Your task to perform on an android device: What's the weather going to be tomorrow? Image 0: 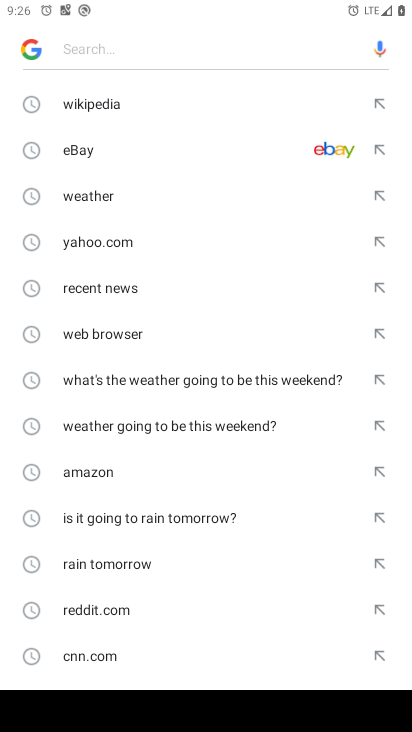
Step 0: press home button
Your task to perform on an android device: What's the weather going to be tomorrow? Image 1: 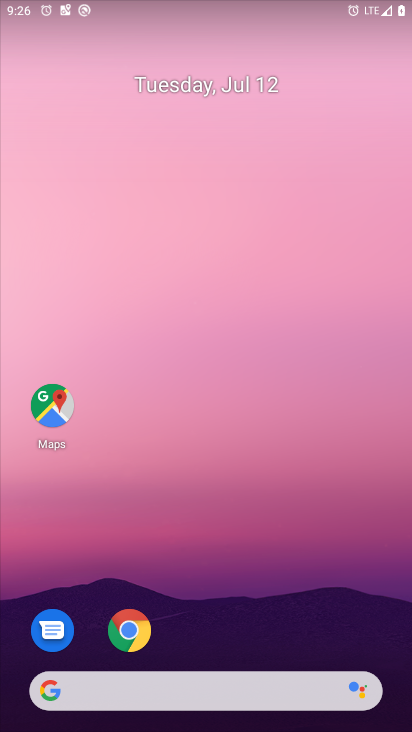
Step 1: click (174, 683)
Your task to perform on an android device: What's the weather going to be tomorrow? Image 2: 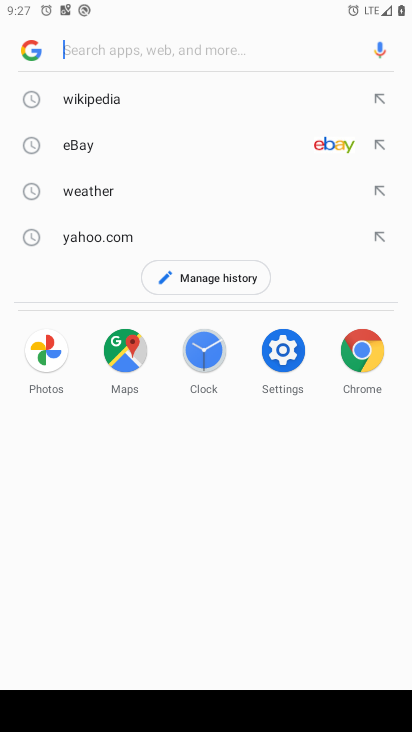
Step 2: type "What's the weather going to be tomorrow?"
Your task to perform on an android device: What's the weather going to be tomorrow? Image 3: 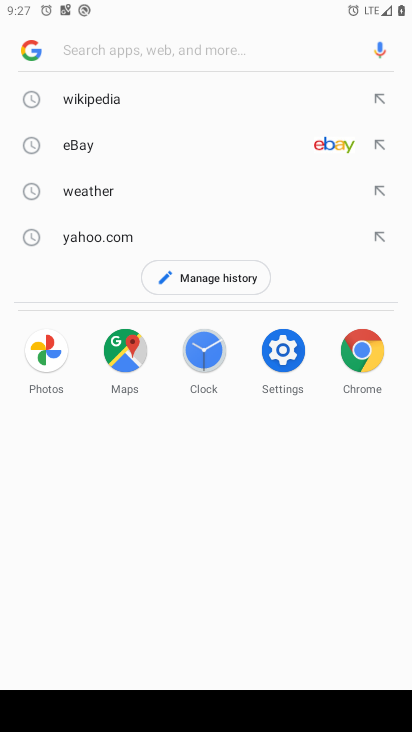
Step 3: click (105, 50)
Your task to perform on an android device: What's the weather going to be tomorrow? Image 4: 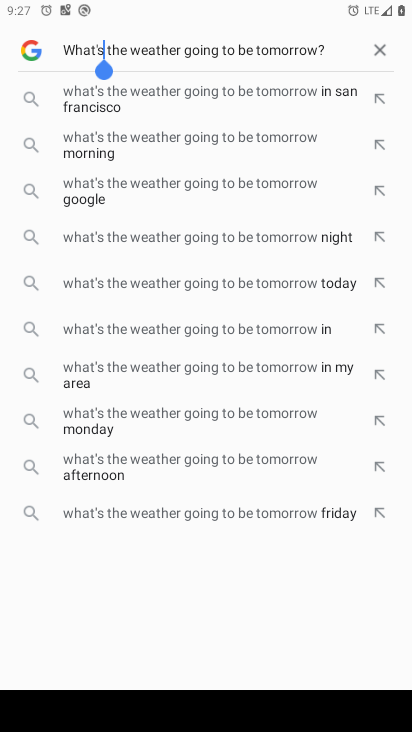
Step 4: press enter
Your task to perform on an android device: What's the weather going to be tomorrow? Image 5: 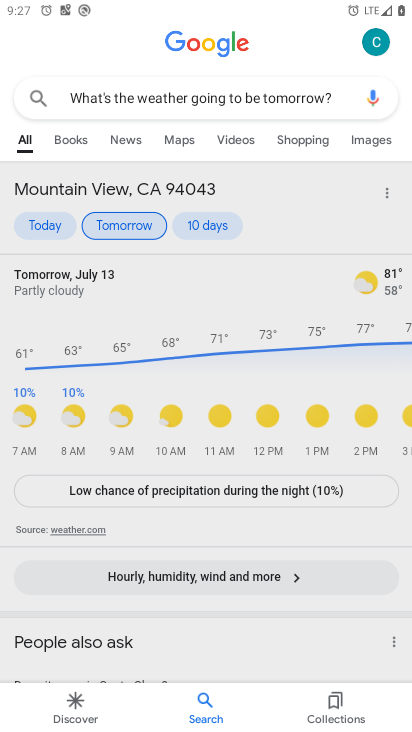
Step 5: task complete